Your task to perform on an android device: Go to network settings Image 0: 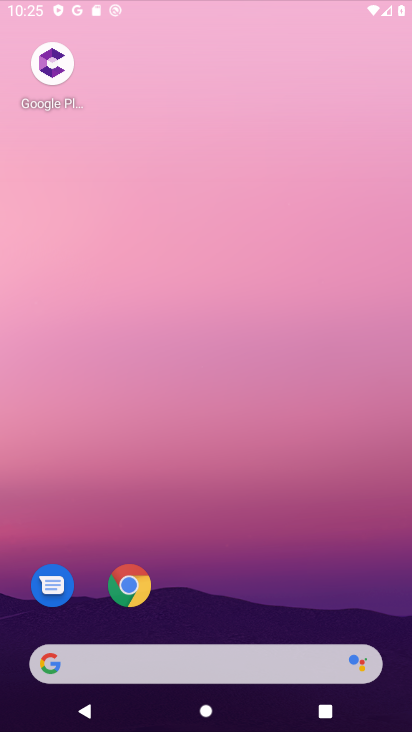
Step 0: click (350, 91)
Your task to perform on an android device: Go to network settings Image 1: 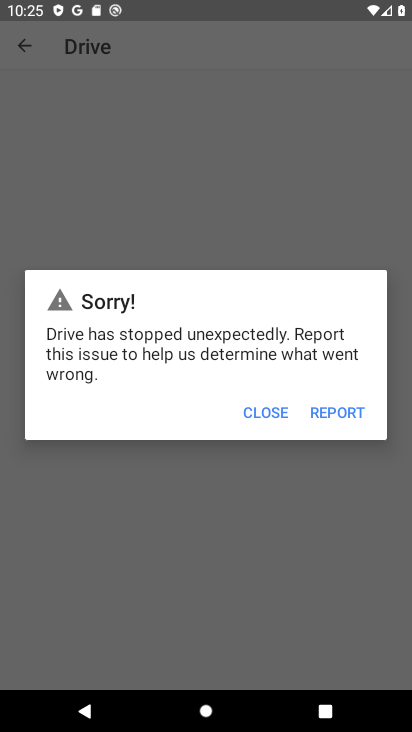
Step 1: press home button
Your task to perform on an android device: Go to network settings Image 2: 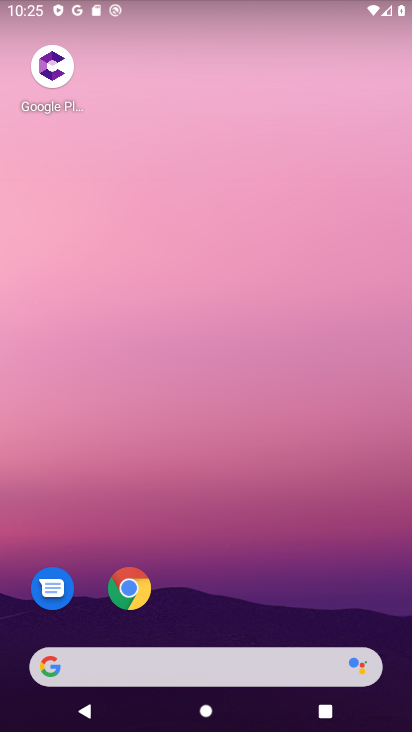
Step 2: drag from (390, 635) to (331, 100)
Your task to perform on an android device: Go to network settings Image 3: 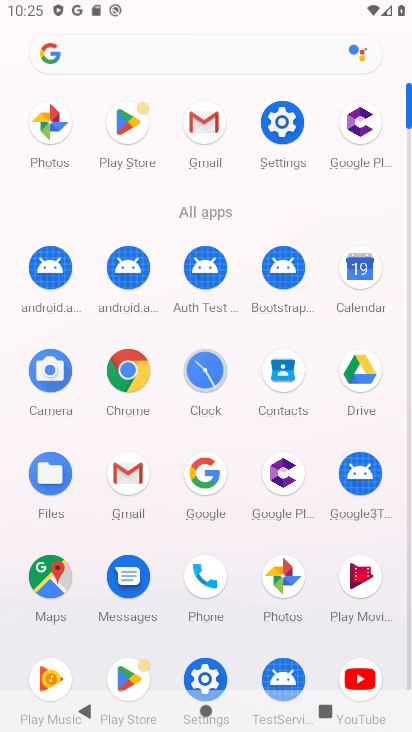
Step 3: click (204, 676)
Your task to perform on an android device: Go to network settings Image 4: 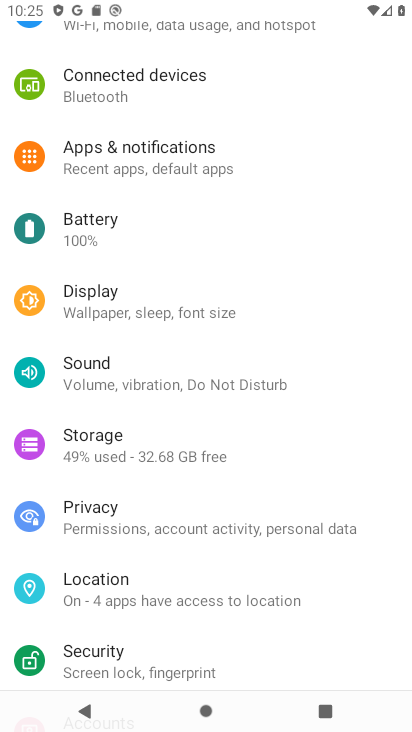
Step 4: drag from (255, 105) to (266, 358)
Your task to perform on an android device: Go to network settings Image 5: 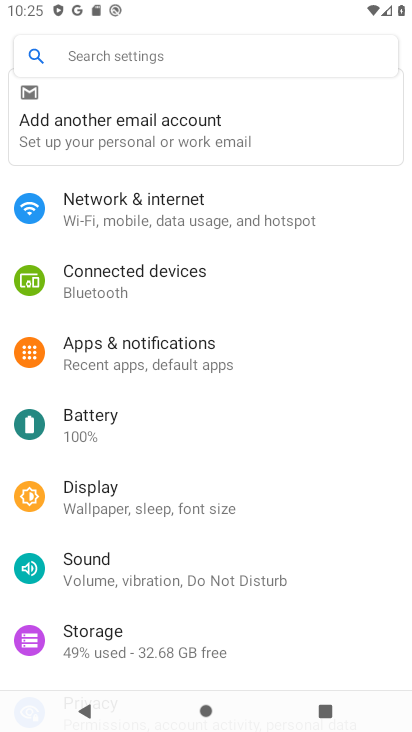
Step 5: click (117, 213)
Your task to perform on an android device: Go to network settings Image 6: 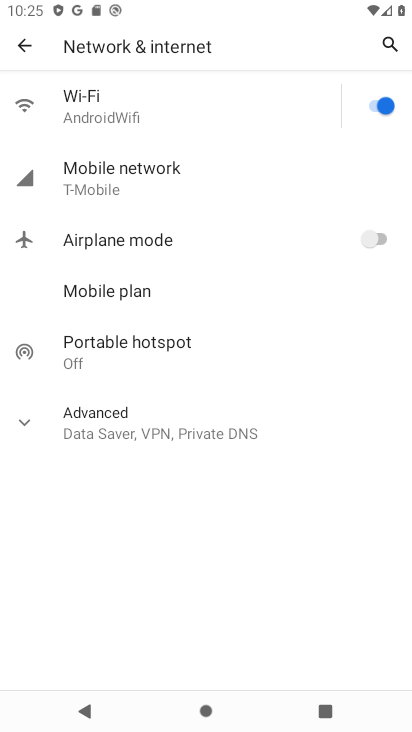
Step 6: click (112, 176)
Your task to perform on an android device: Go to network settings Image 7: 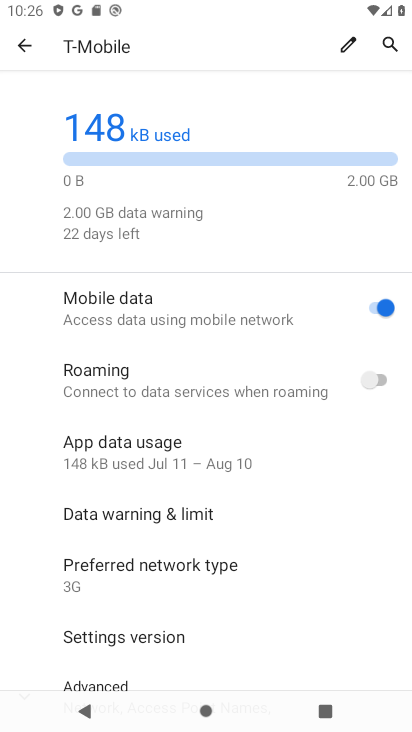
Step 7: task complete